Your task to perform on an android device: Check the weather Image 0: 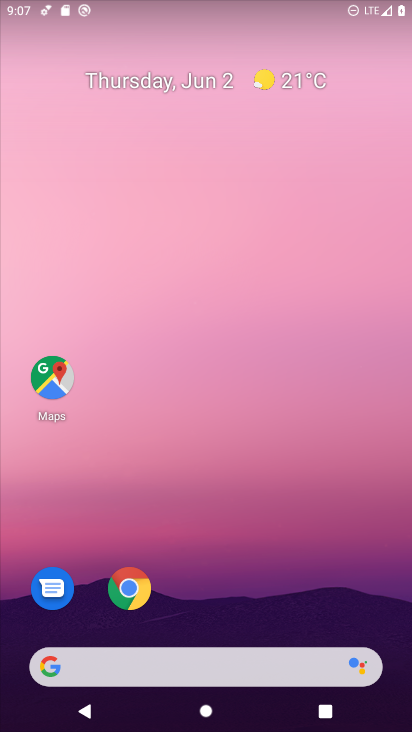
Step 0: drag from (267, 535) to (238, 261)
Your task to perform on an android device: Check the weather Image 1: 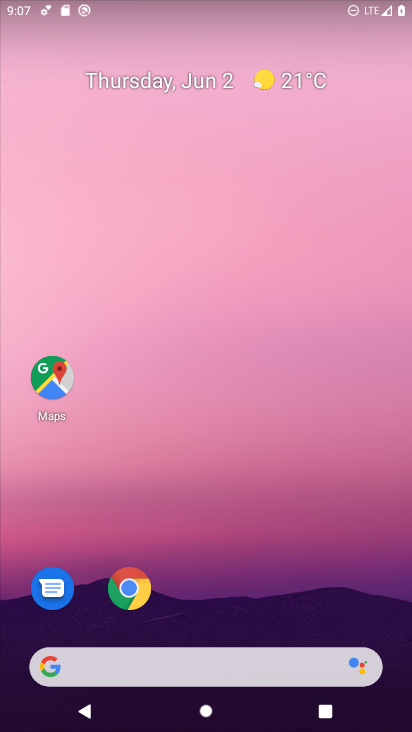
Step 1: drag from (243, 652) to (216, 311)
Your task to perform on an android device: Check the weather Image 2: 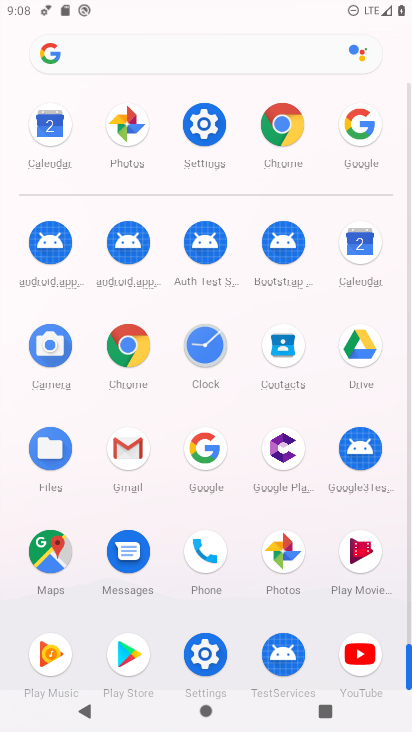
Step 2: click (212, 462)
Your task to perform on an android device: Check the weather Image 3: 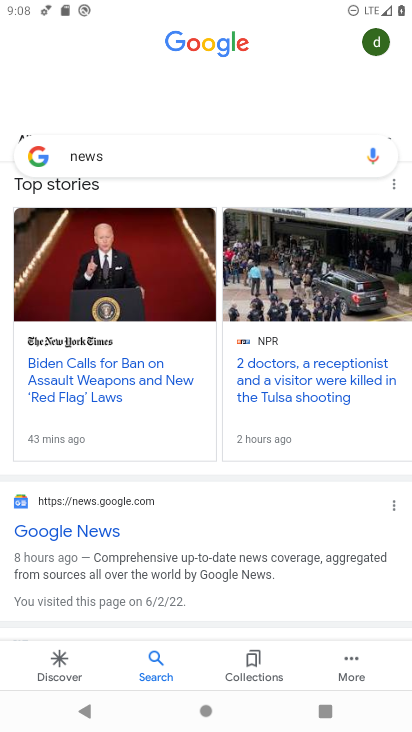
Step 3: click (220, 161)
Your task to perform on an android device: Check the weather Image 4: 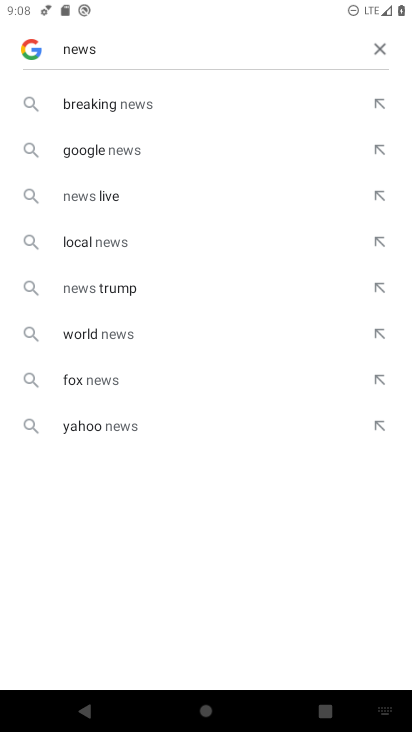
Step 4: click (386, 51)
Your task to perform on an android device: Check the weather Image 5: 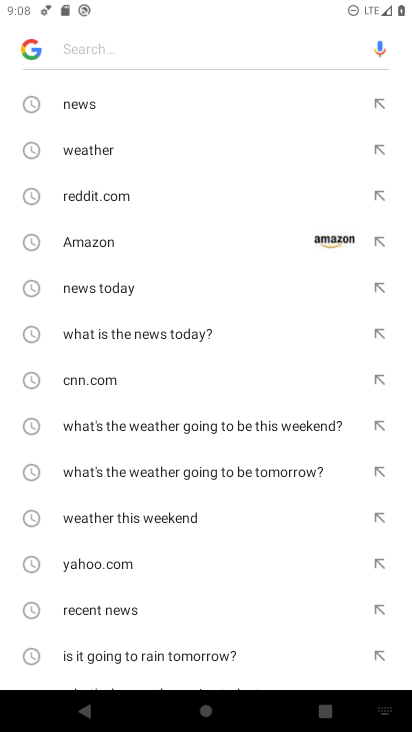
Step 5: click (184, 152)
Your task to perform on an android device: Check the weather Image 6: 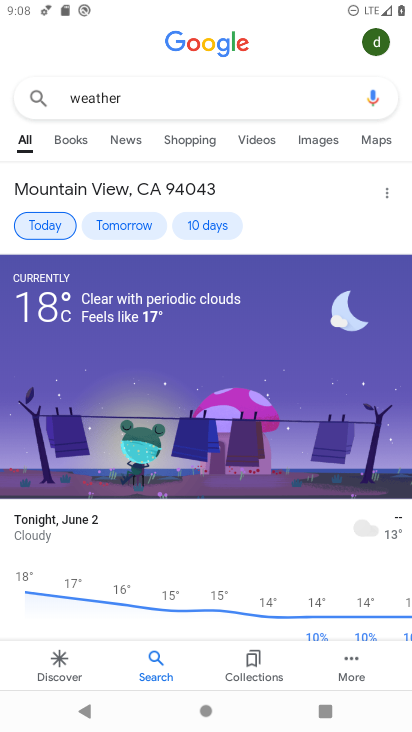
Step 6: task complete